Your task to perform on an android device: manage bookmarks in the chrome app Image 0: 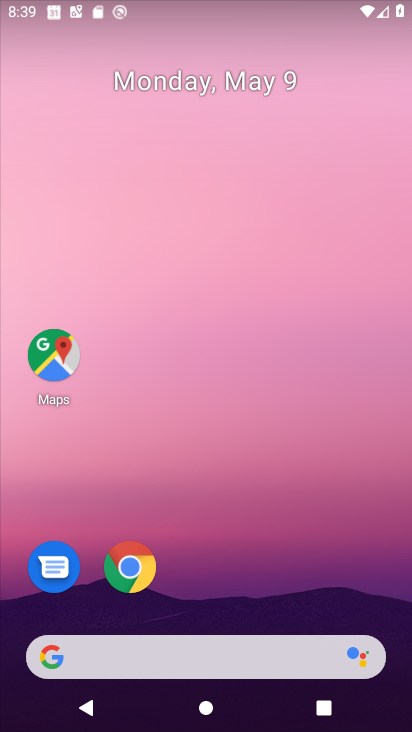
Step 0: drag from (252, 401) to (317, 159)
Your task to perform on an android device: manage bookmarks in the chrome app Image 1: 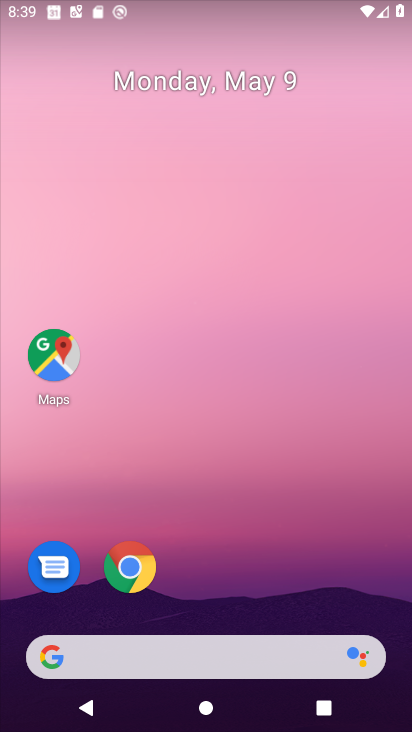
Step 1: click (135, 566)
Your task to perform on an android device: manage bookmarks in the chrome app Image 2: 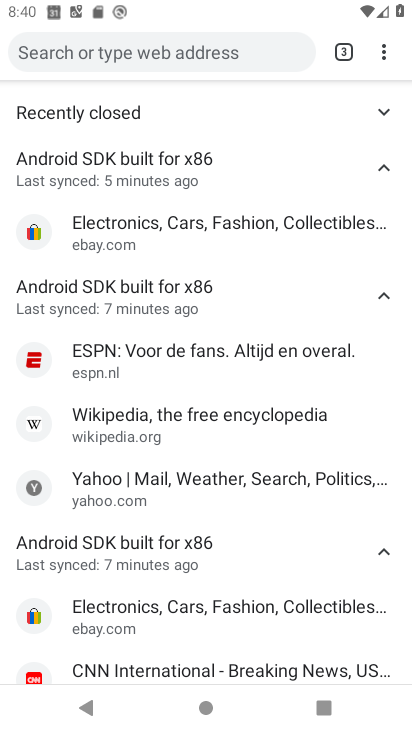
Step 2: drag from (219, 622) to (309, 235)
Your task to perform on an android device: manage bookmarks in the chrome app Image 3: 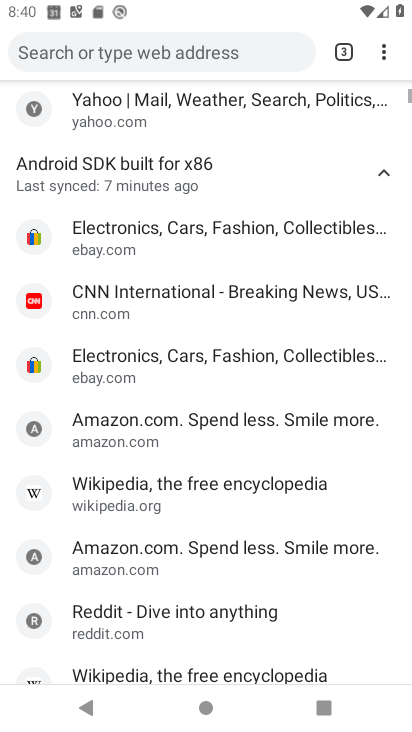
Step 3: drag from (261, 206) to (243, 639)
Your task to perform on an android device: manage bookmarks in the chrome app Image 4: 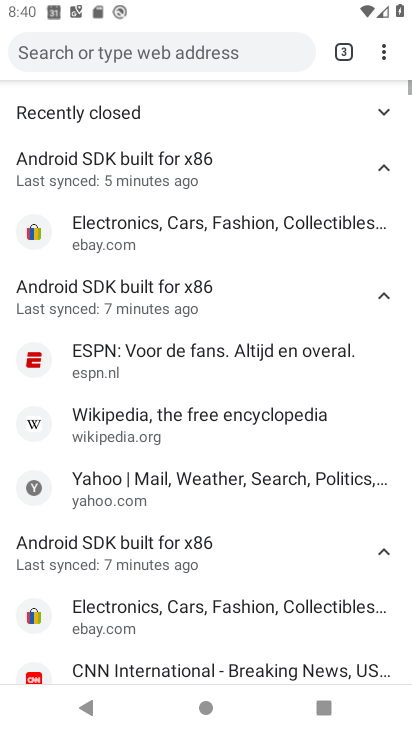
Step 4: drag from (387, 51) to (233, 439)
Your task to perform on an android device: manage bookmarks in the chrome app Image 5: 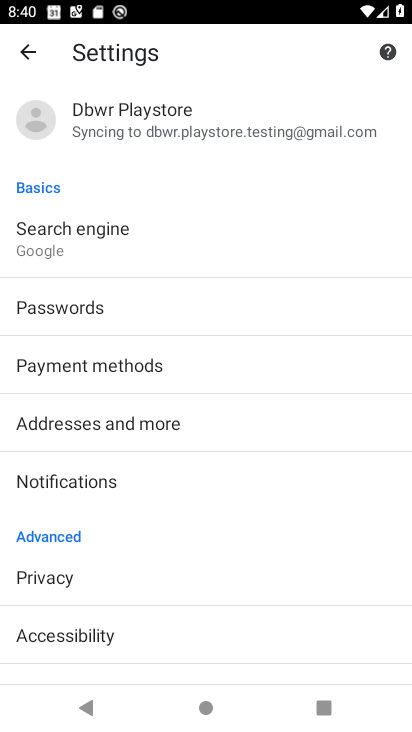
Step 5: click (26, 43)
Your task to perform on an android device: manage bookmarks in the chrome app Image 6: 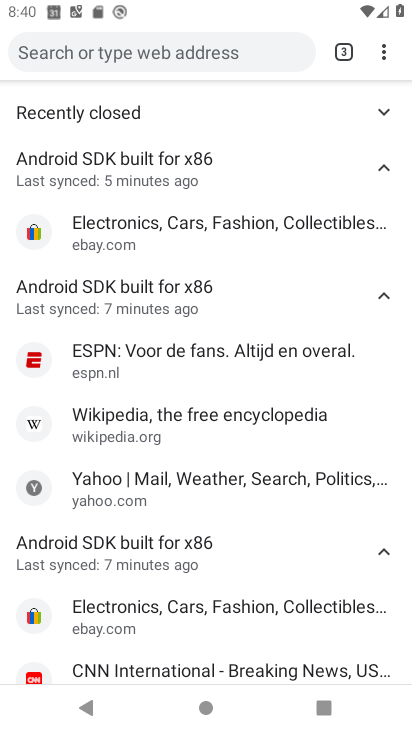
Step 6: drag from (388, 56) to (240, 201)
Your task to perform on an android device: manage bookmarks in the chrome app Image 7: 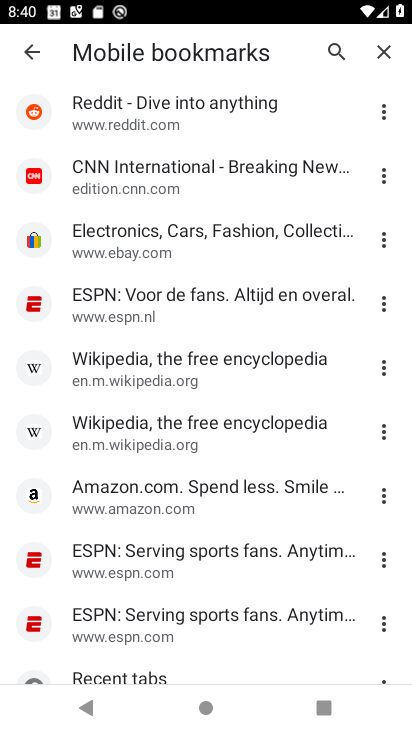
Step 7: click (387, 246)
Your task to perform on an android device: manage bookmarks in the chrome app Image 8: 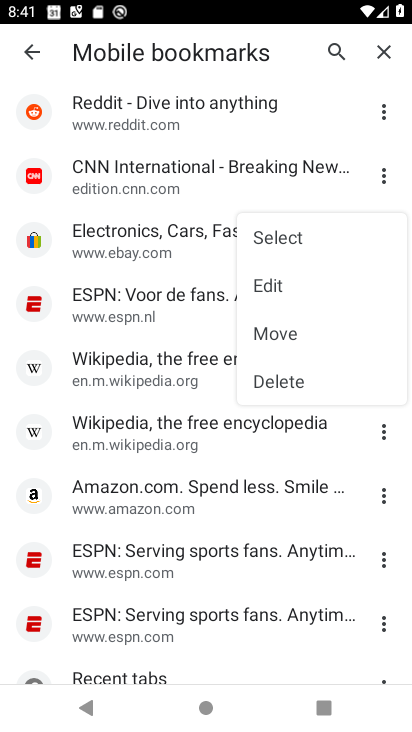
Step 8: drag from (194, 565) to (315, 179)
Your task to perform on an android device: manage bookmarks in the chrome app Image 9: 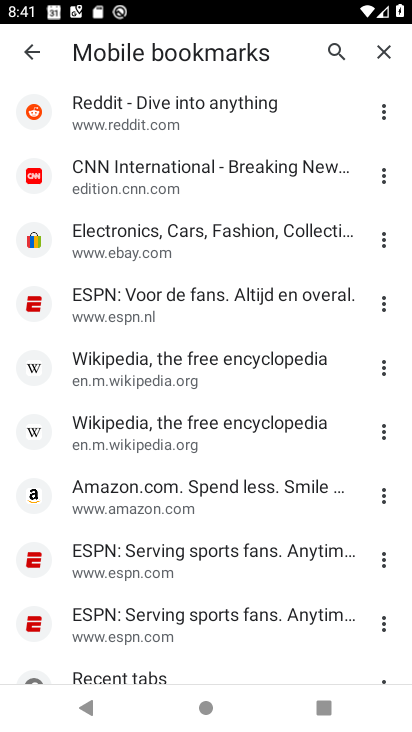
Step 9: click (386, 234)
Your task to perform on an android device: manage bookmarks in the chrome app Image 10: 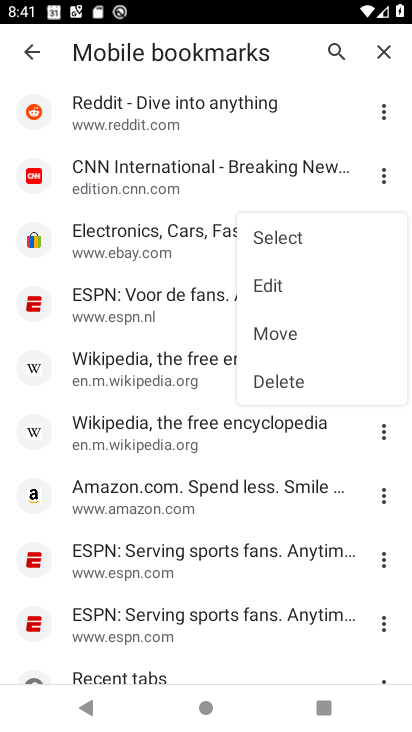
Step 10: click (277, 328)
Your task to perform on an android device: manage bookmarks in the chrome app Image 11: 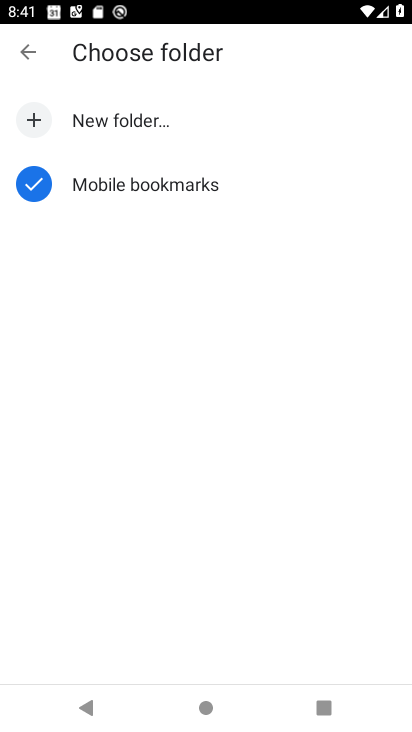
Step 11: task complete